Your task to perform on an android device: Search for pizza restaurants on Maps Image 0: 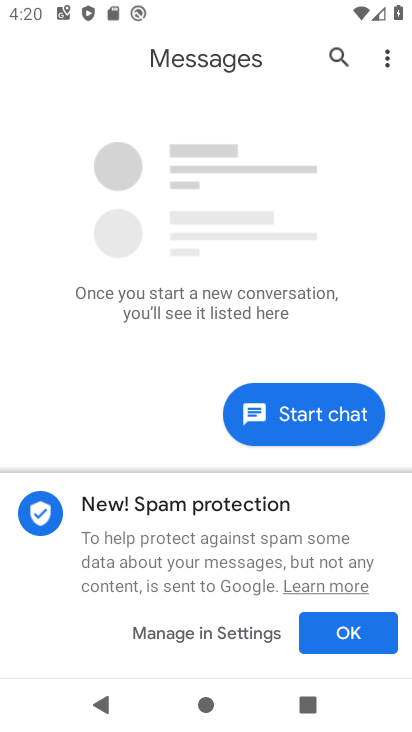
Step 0: press home button
Your task to perform on an android device: Search for pizza restaurants on Maps Image 1: 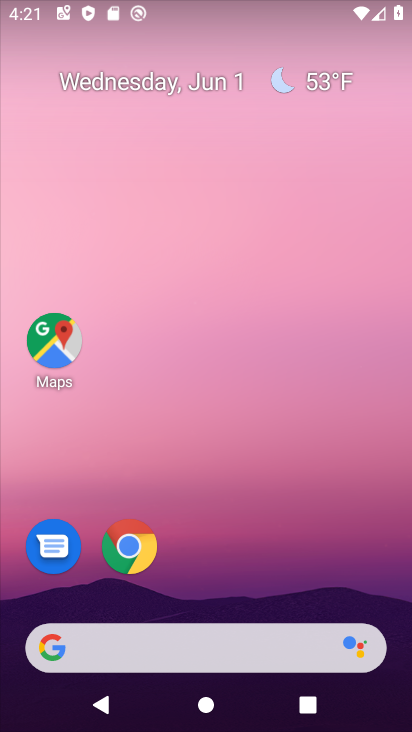
Step 1: click (49, 341)
Your task to perform on an android device: Search for pizza restaurants on Maps Image 2: 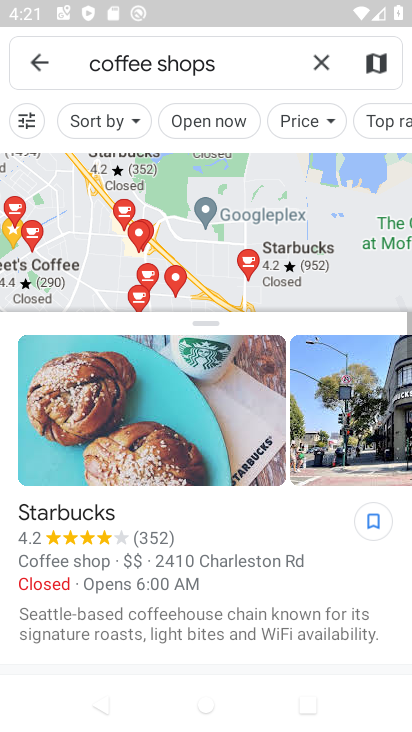
Step 2: click (327, 57)
Your task to perform on an android device: Search for pizza restaurants on Maps Image 3: 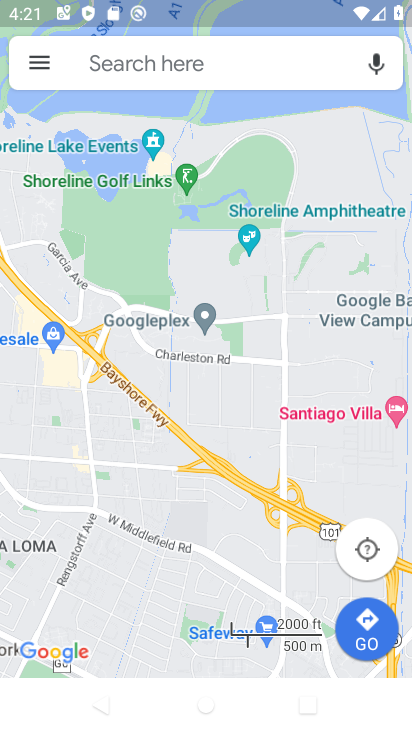
Step 3: click (211, 62)
Your task to perform on an android device: Search for pizza restaurants on Maps Image 4: 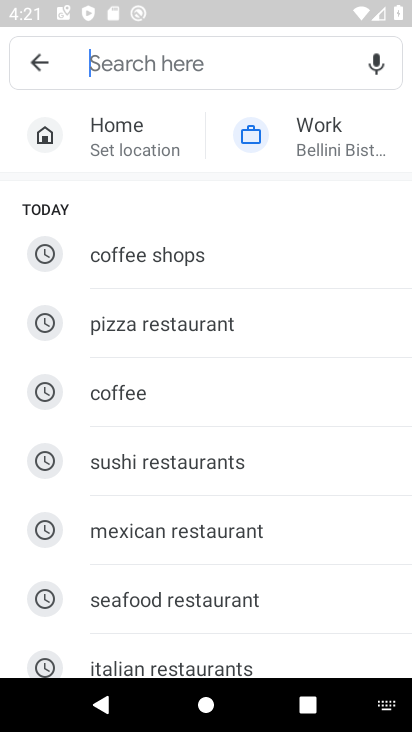
Step 4: click (199, 327)
Your task to perform on an android device: Search for pizza restaurants on Maps Image 5: 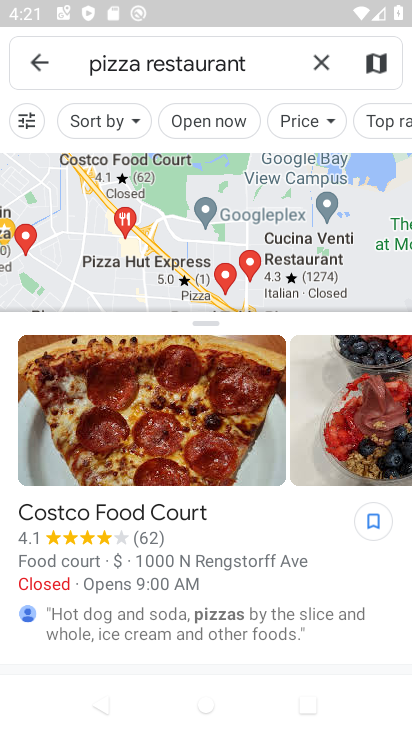
Step 5: task complete